Your task to perform on an android device: delete browsing data in the chrome app Image 0: 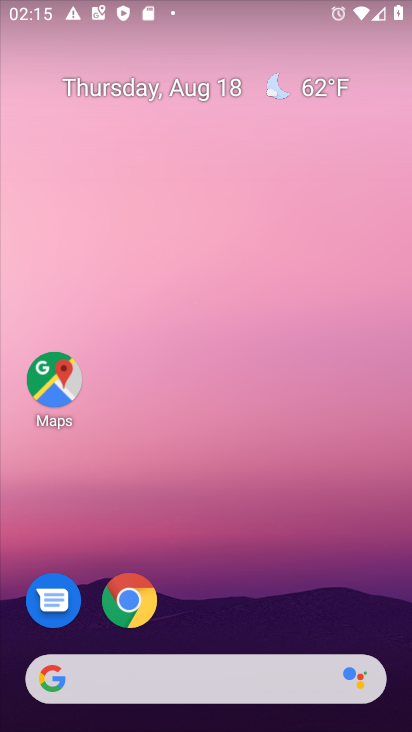
Step 0: press home button
Your task to perform on an android device: delete browsing data in the chrome app Image 1: 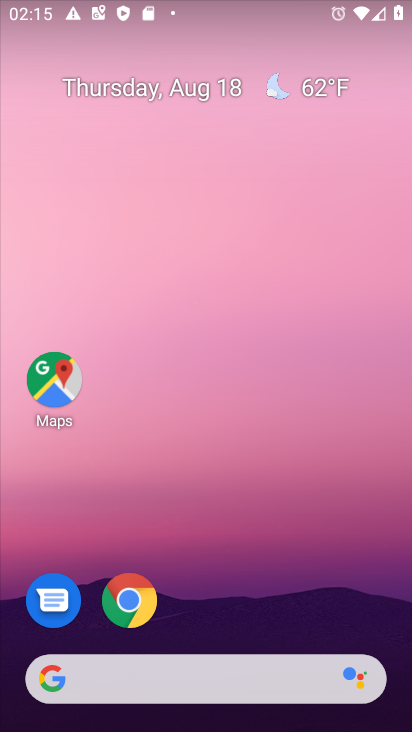
Step 1: click (128, 591)
Your task to perform on an android device: delete browsing data in the chrome app Image 2: 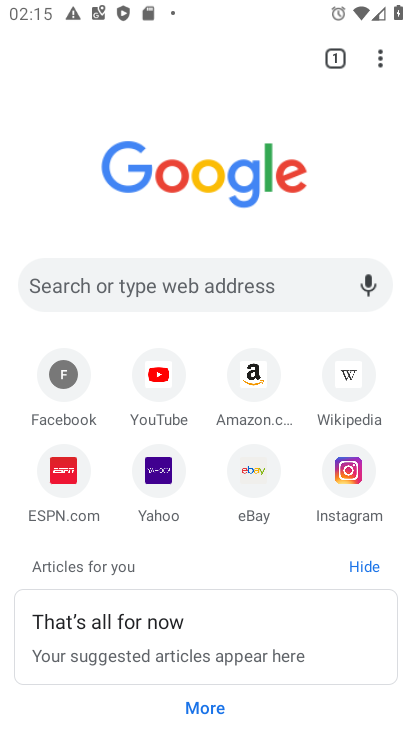
Step 2: drag from (377, 58) to (178, 484)
Your task to perform on an android device: delete browsing data in the chrome app Image 3: 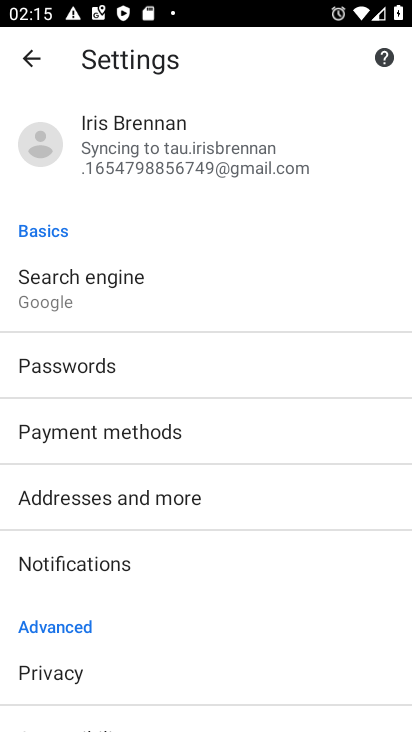
Step 3: click (57, 678)
Your task to perform on an android device: delete browsing data in the chrome app Image 4: 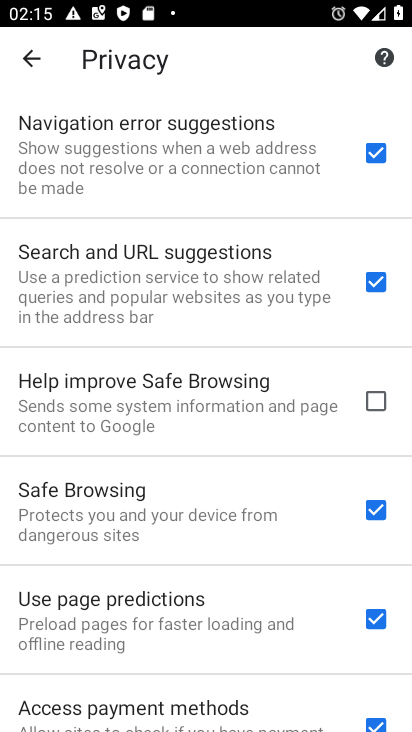
Step 4: drag from (208, 681) to (252, 253)
Your task to perform on an android device: delete browsing data in the chrome app Image 5: 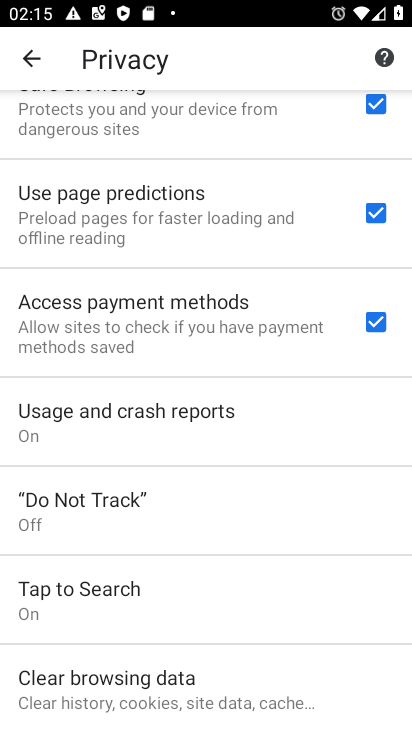
Step 5: click (100, 695)
Your task to perform on an android device: delete browsing data in the chrome app Image 6: 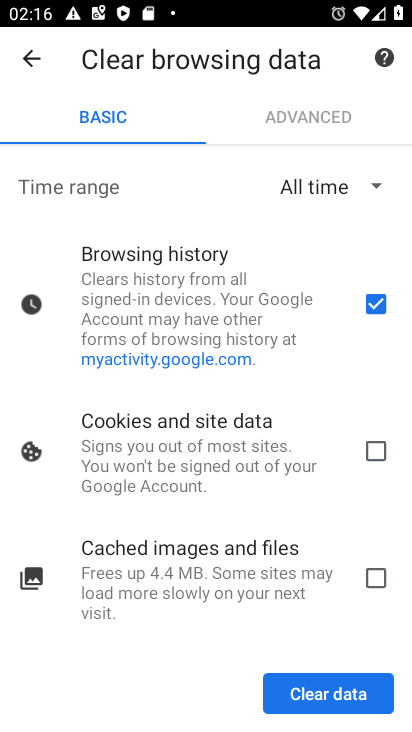
Step 6: click (316, 686)
Your task to perform on an android device: delete browsing data in the chrome app Image 7: 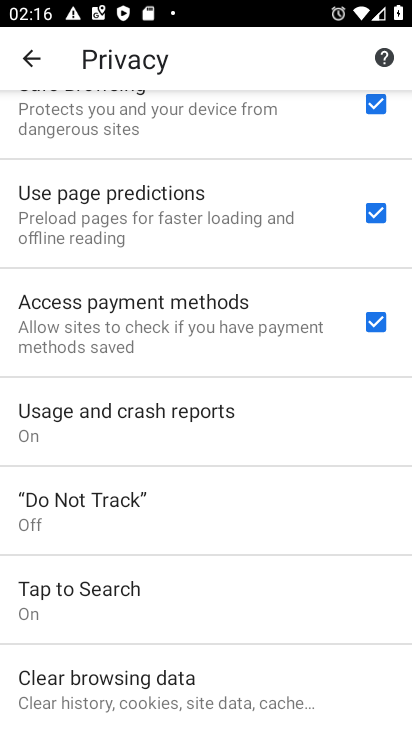
Step 7: task complete